Your task to perform on an android device: check google app version Image 0: 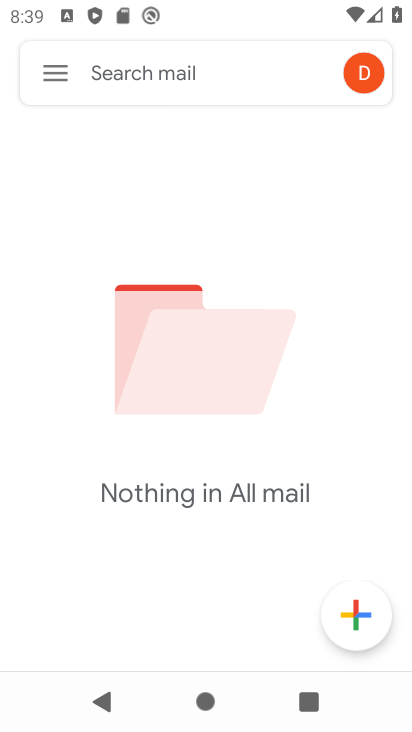
Step 0: press home button
Your task to perform on an android device: check google app version Image 1: 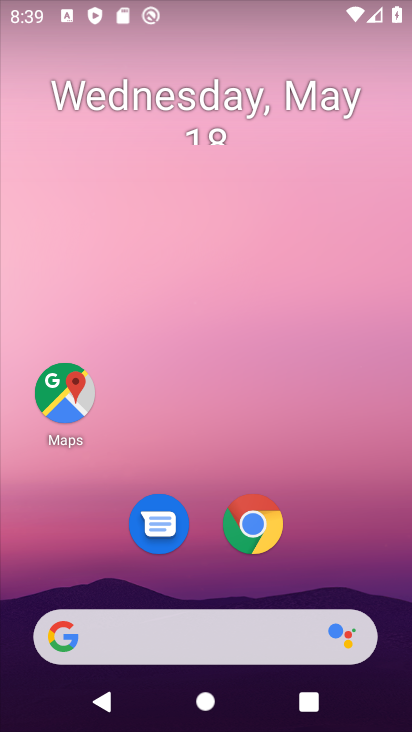
Step 1: click (87, 634)
Your task to perform on an android device: check google app version Image 2: 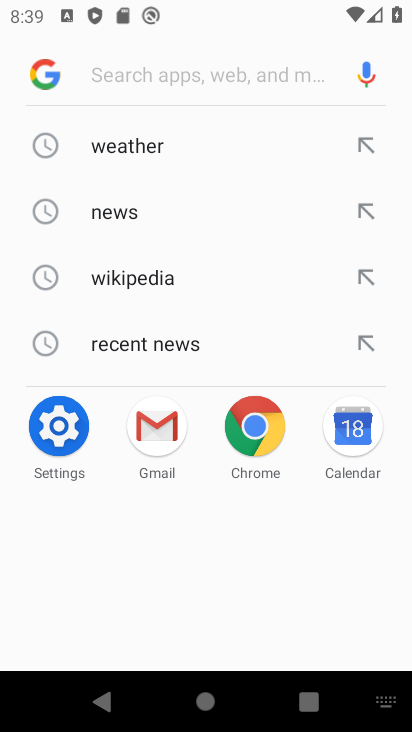
Step 2: click (41, 65)
Your task to perform on an android device: check google app version Image 3: 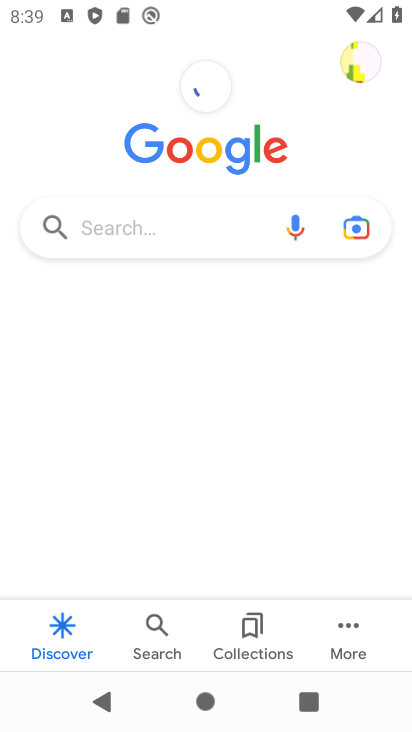
Step 3: click (357, 620)
Your task to perform on an android device: check google app version Image 4: 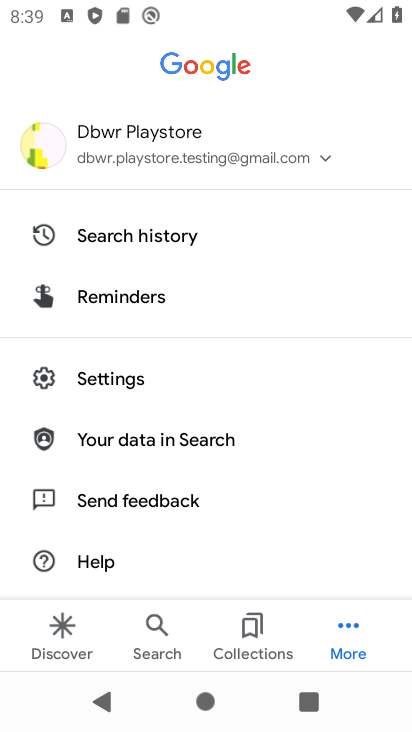
Step 4: click (113, 367)
Your task to perform on an android device: check google app version Image 5: 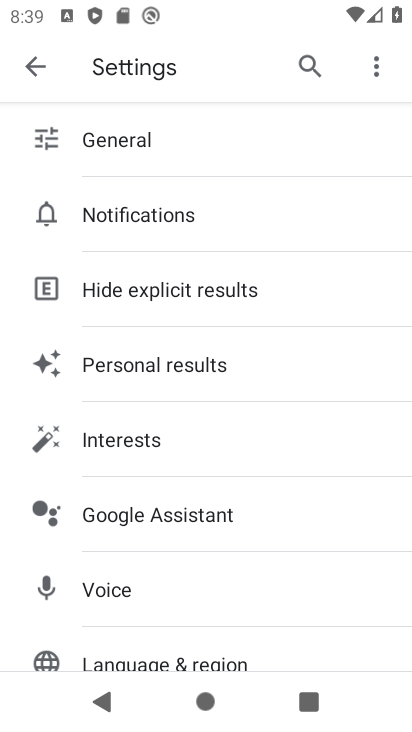
Step 5: drag from (200, 577) to (180, 301)
Your task to perform on an android device: check google app version Image 6: 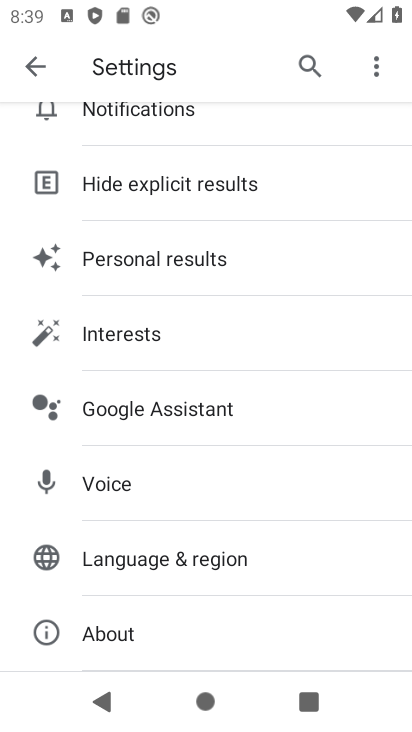
Step 6: click (165, 636)
Your task to perform on an android device: check google app version Image 7: 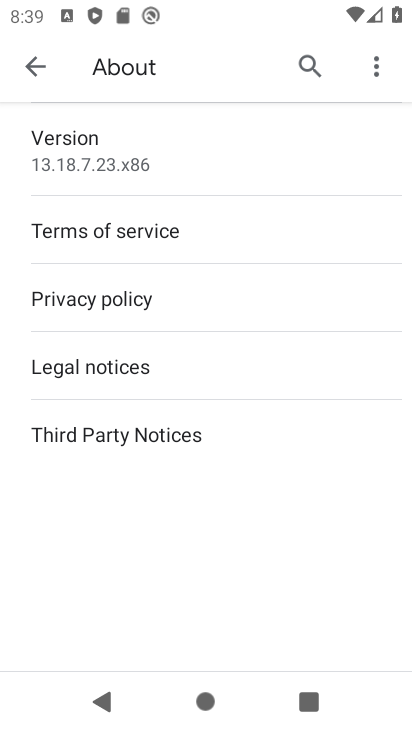
Step 7: task complete